Your task to perform on an android device: What's the weather? Image 0: 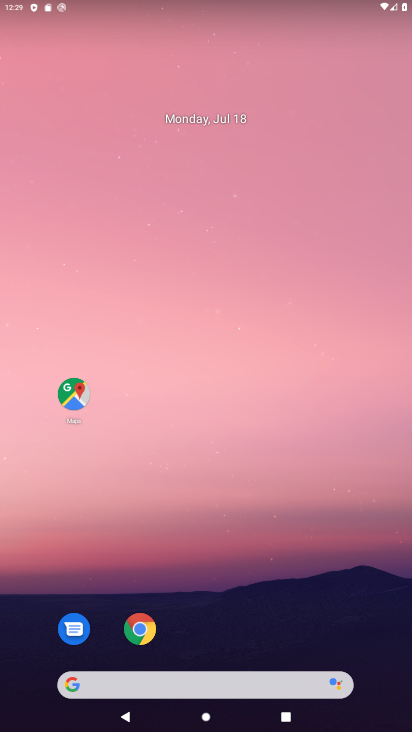
Step 0: click (225, 675)
Your task to perform on an android device: What's the weather? Image 1: 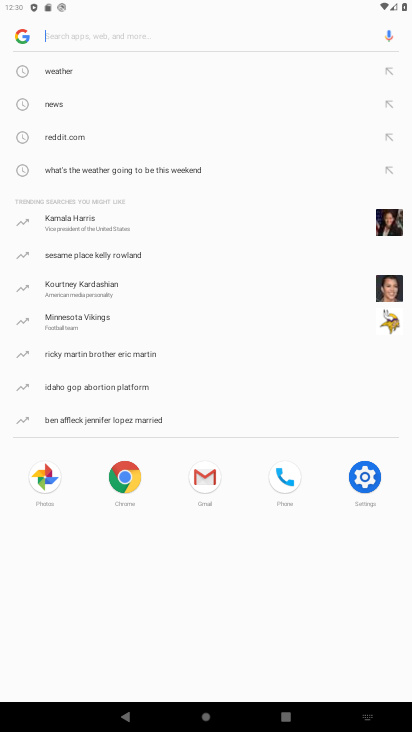
Step 1: click (59, 71)
Your task to perform on an android device: What's the weather? Image 2: 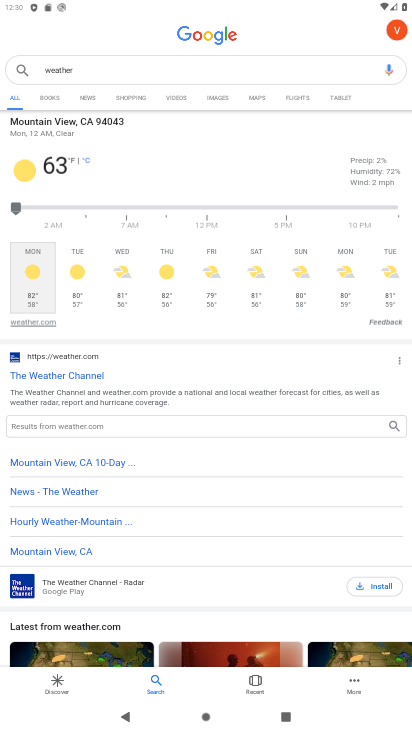
Step 2: task complete